Your task to perform on an android device: move a message to another label in the gmail app Image 0: 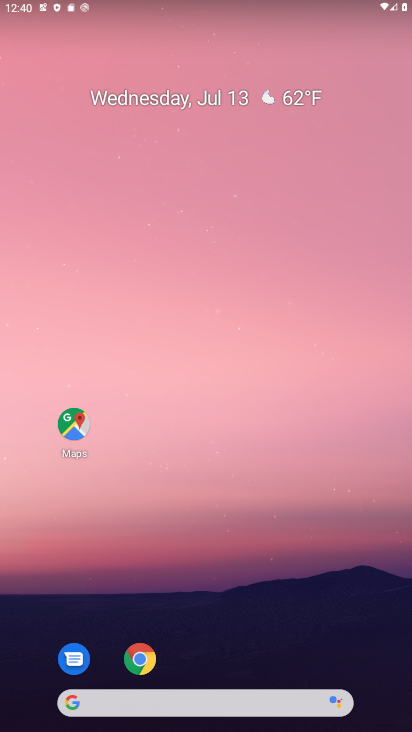
Step 0: drag from (229, 717) to (231, 98)
Your task to perform on an android device: move a message to another label in the gmail app Image 1: 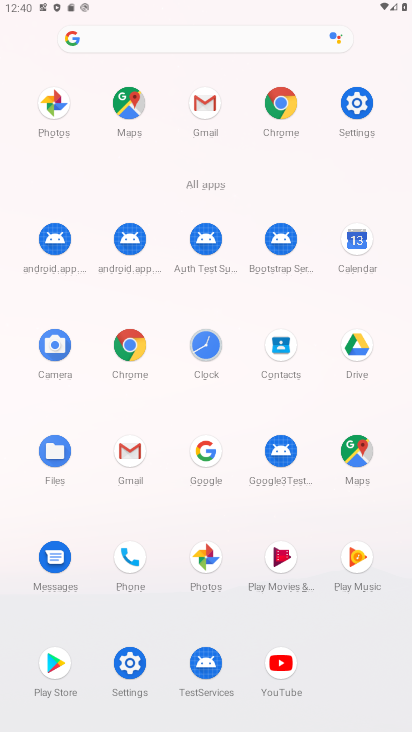
Step 1: click (128, 453)
Your task to perform on an android device: move a message to another label in the gmail app Image 2: 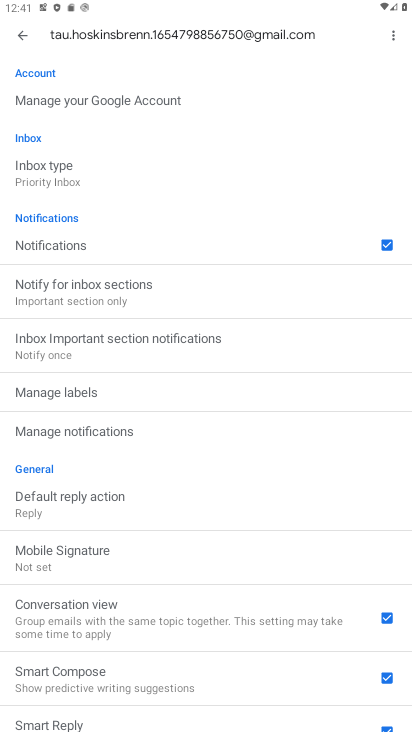
Step 2: click (21, 25)
Your task to perform on an android device: move a message to another label in the gmail app Image 3: 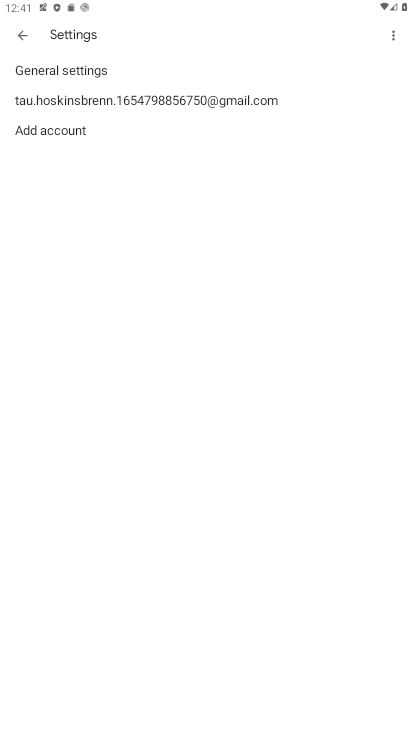
Step 3: click (23, 34)
Your task to perform on an android device: move a message to another label in the gmail app Image 4: 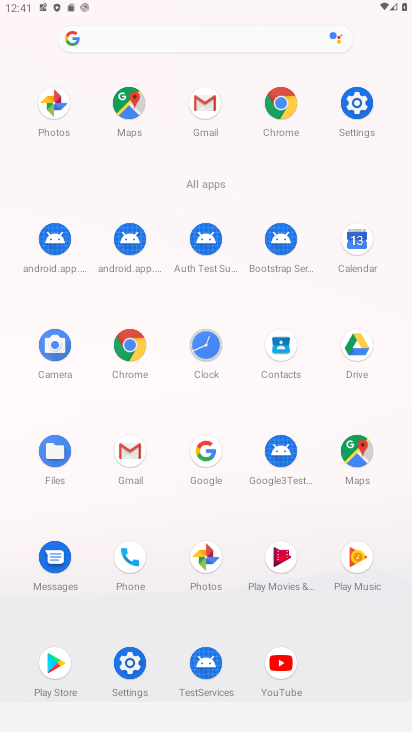
Step 4: click (201, 99)
Your task to perform on an android device: move a message to another label in the gmail app Image 5: 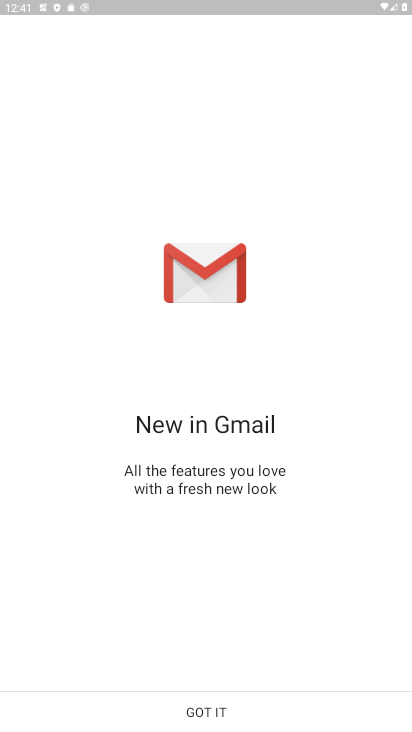
Step 5: click (218, 706)
Your task to perform on an android device: move a message to another label in the gmail app Image 6: 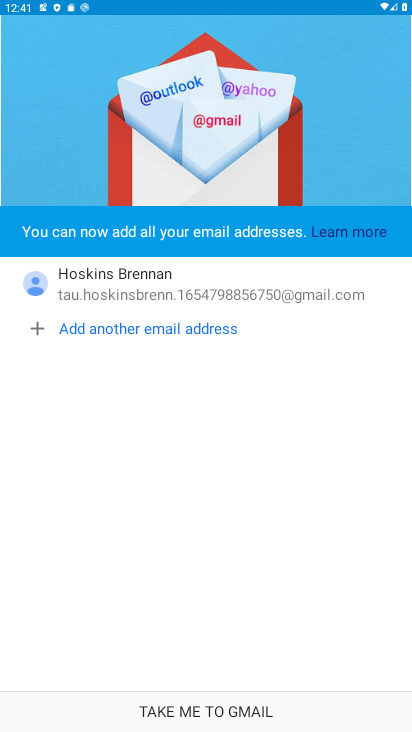
Step 6: click (203, 709)
Your task to perform on an android device: move a message to another label in the gmail app Image 7: 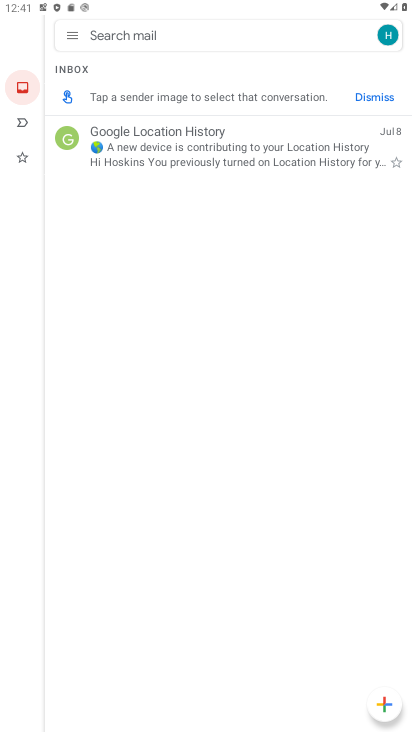
Step 7: click (306, 156)
Your task to perform on an android device: move a message to another label in the gmail app Image 8: 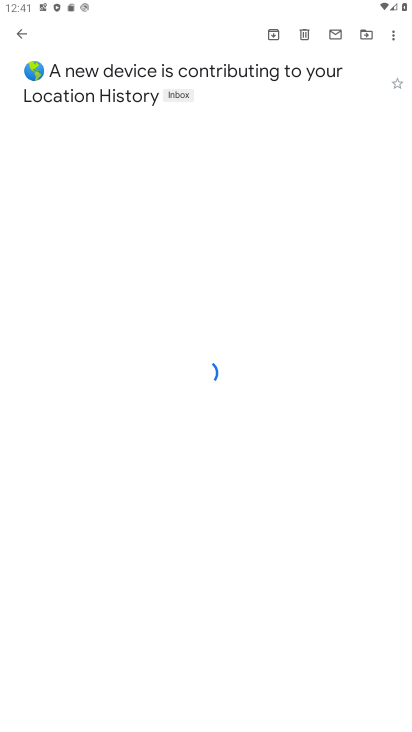
Step 8: click (306, 152)
Your task to perform on an android device: move a message to another label in the gmail app Image 9: 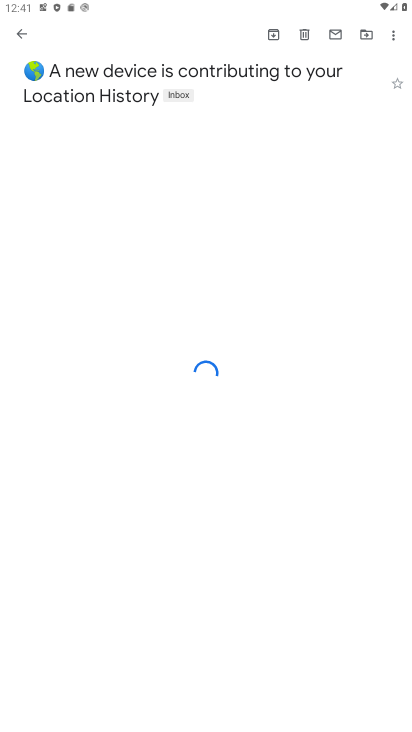
Step 9: click (396, 40)
Your task to perform on an android device: move a message to another label in the gmail app Image 10: 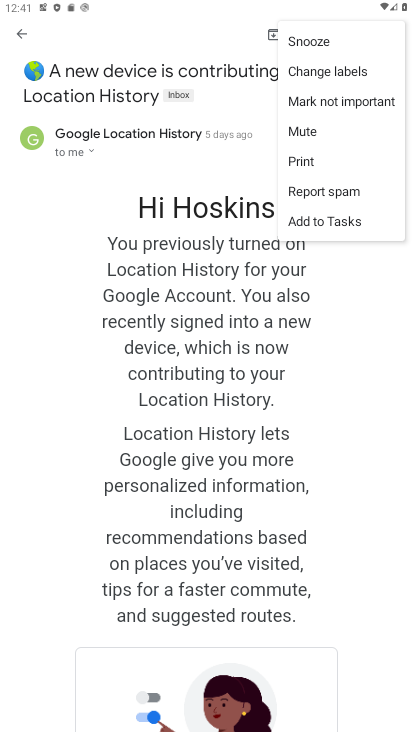
Step 10: click (228, 152)
Your task to perform on an android device: move a message to another label in the gmail app Image 11: 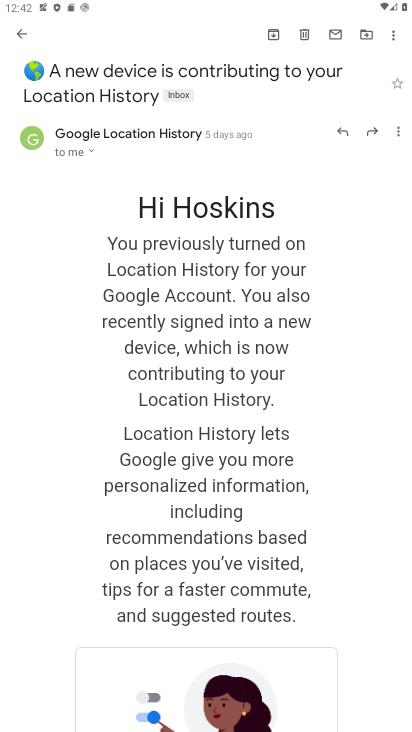
Step 11: click (396, 131)
Your task to perform on an android device: move a message to another label in the gmail app Image 12: 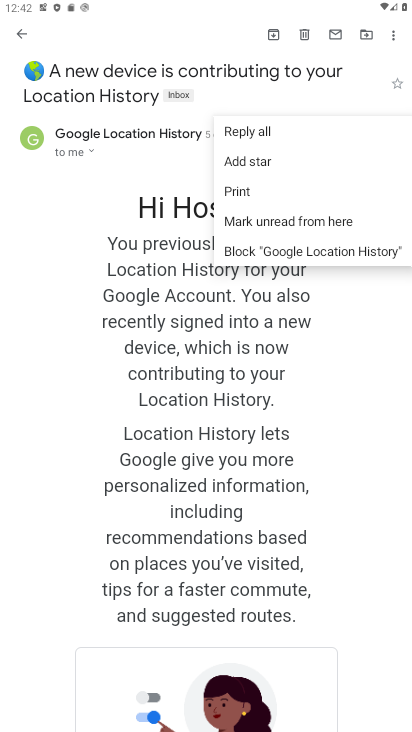
Step 12: click (168, 168)
Your task to perform on an android device: move a message to another label in the gmail app Image 13: 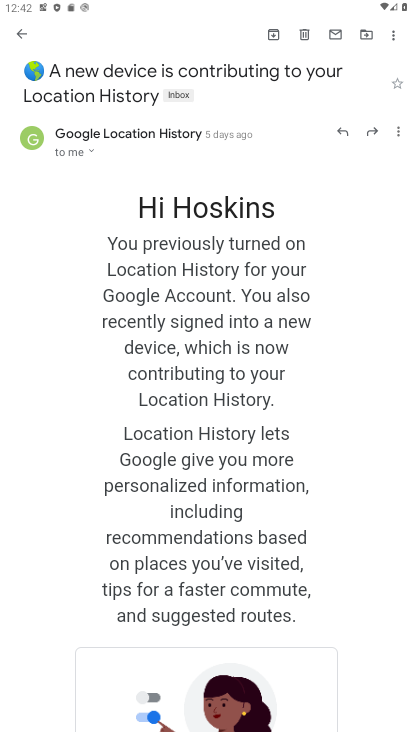
Step 13: click (26, 35)
Your task to perform on an android device: move a message to another label in the gmail app Image 14: 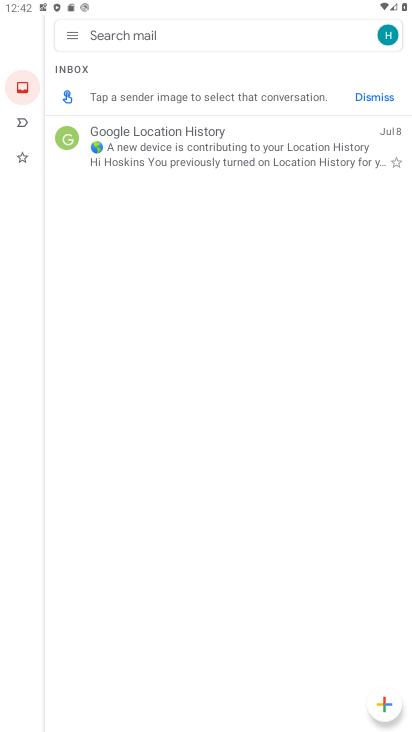
Step 14: click (265, 150)
Your task to perform on an android device: move a message to another label in the gmail app Image 15: 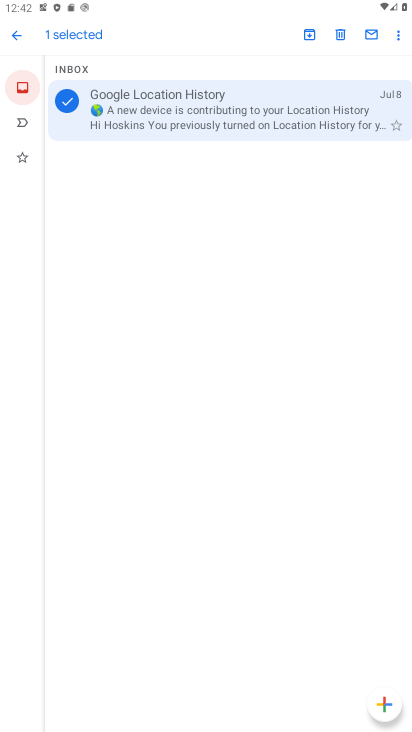
Step 15: click (398, 35)
Your task to perform on an android device: move a message to another label in the gmail app Image 16: 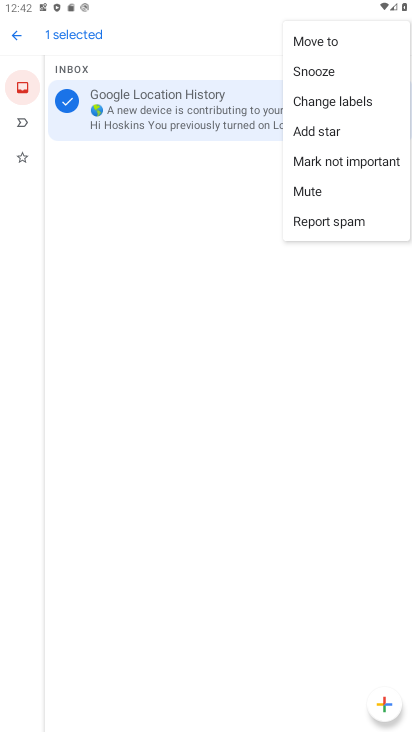
Step 16: click (329, 45)
Your task to perform on an android device: move a message to another label in the gmail app Image 17: 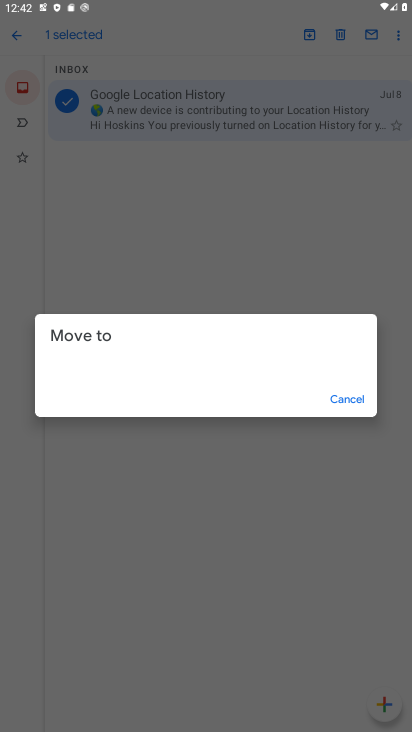
Step 17: task complete